Your task to perform on an android device: Search for "logitech g933" on bestbuy.com, select the first entry, and add it to the cart. Image 0: 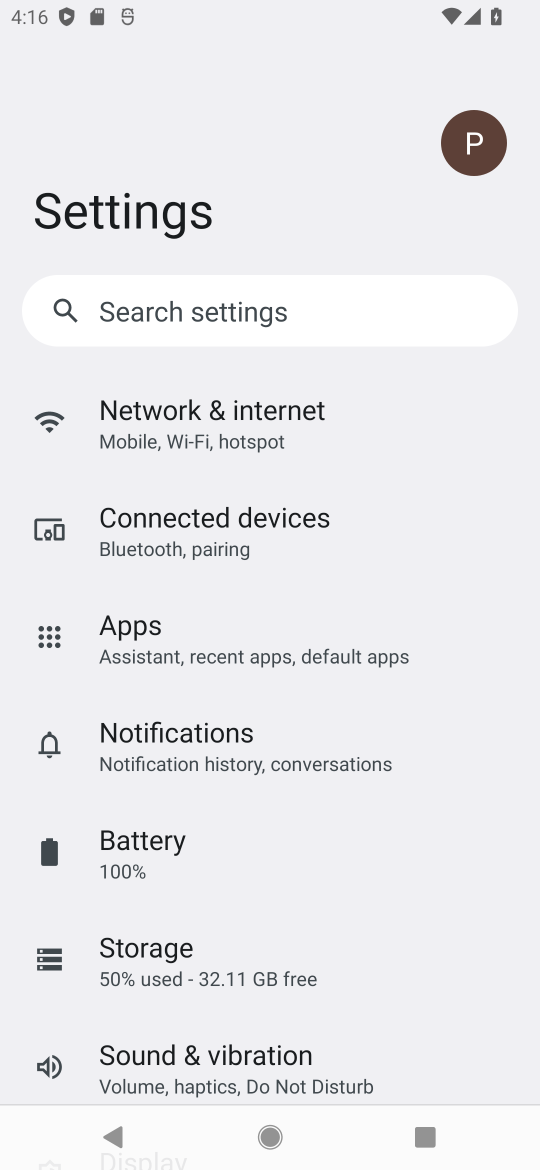
Step 0: press home button
Your task to perform on an android device: Search for "logitech g933" on bestbuy.com, select the first entry, and add it to the cart. Image 1: 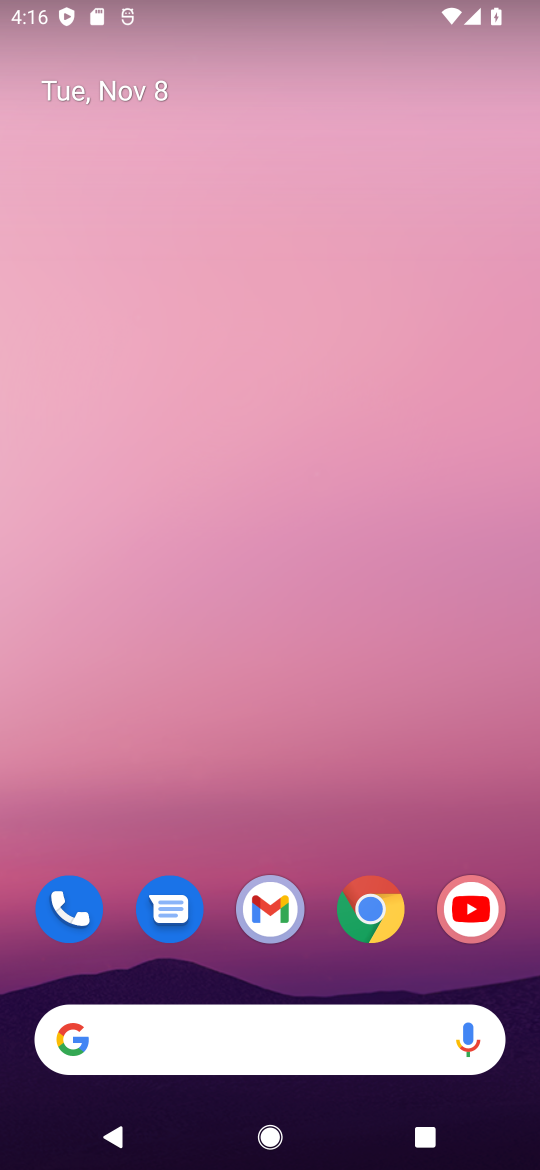
Step 1: click (376, 902)
Your task to perform on an android device: Search for "logitech g933" on bestbuy.com, select the first entry, and add it to the cart. Image 2: 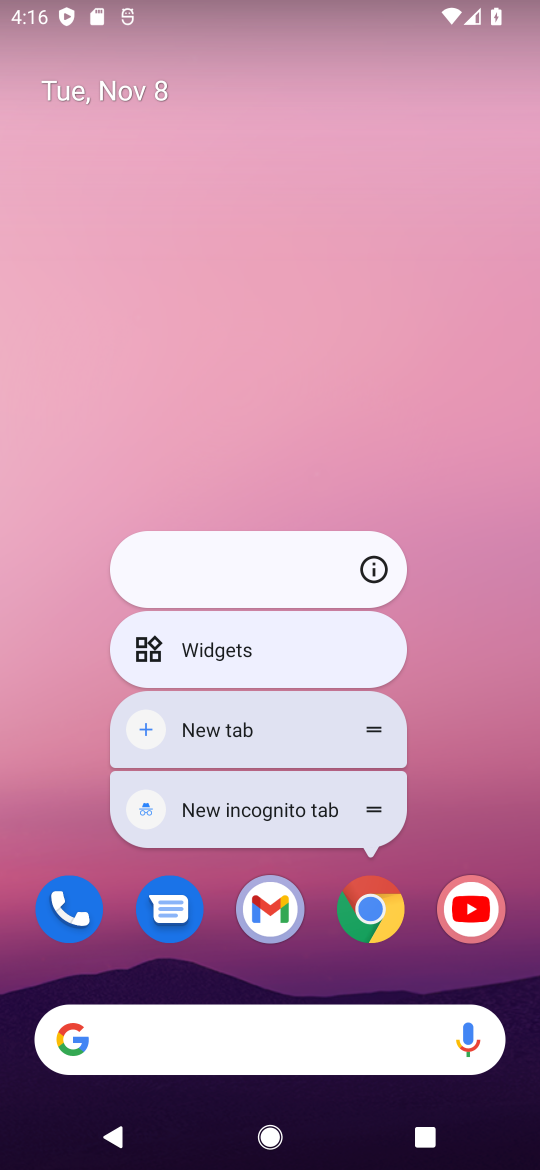
Step 2: click (376, 909)
Your task to perform on an android device: Search for "logitech g933" on bestbuy.com, select the first entry, and add it to the cart. Image 3: 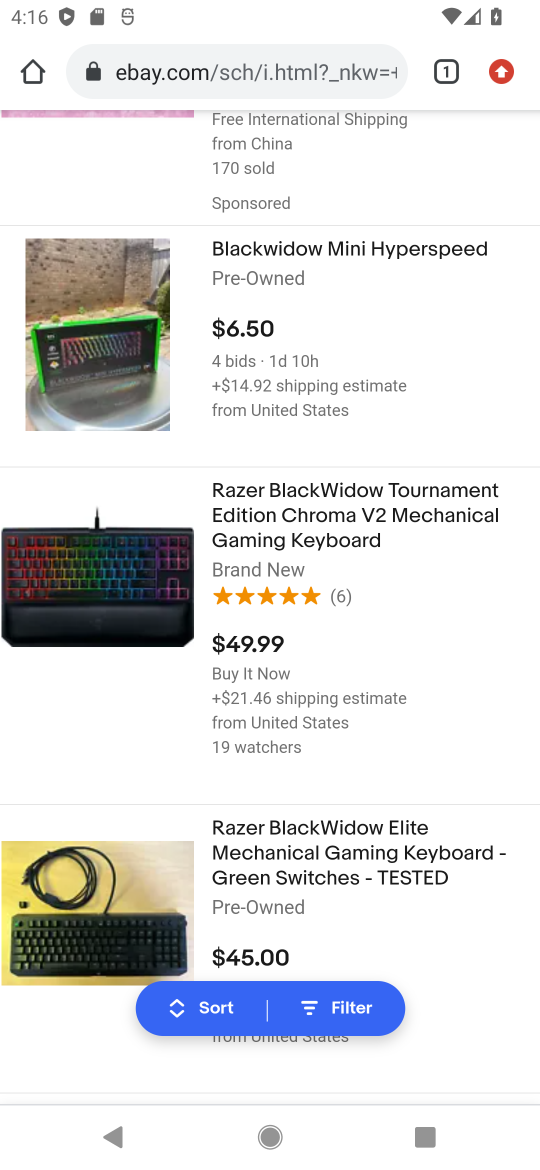
Step 3: click (288, 68)
Your task to perform on an android device: Search for "logitech g933" on bestbuy.com, select the first entry, and add it to the cart. Image 4: 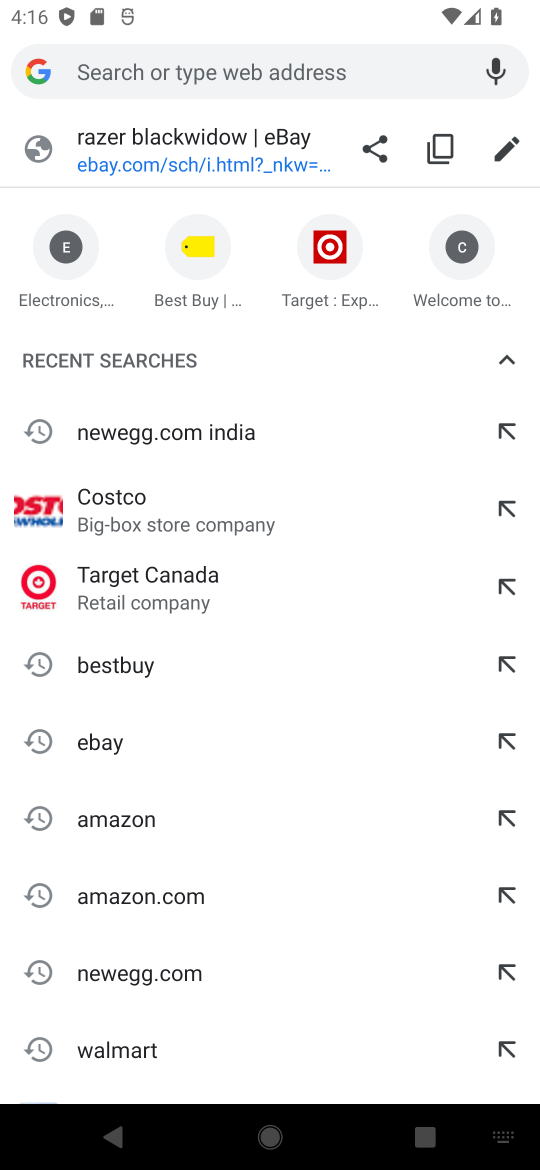
Step 4: type "bestbuy.com"
Your task to perform on an android device: Search for "logitech g933" on bestbuy.com, select the first entry, and add it to the cart. Image 5: 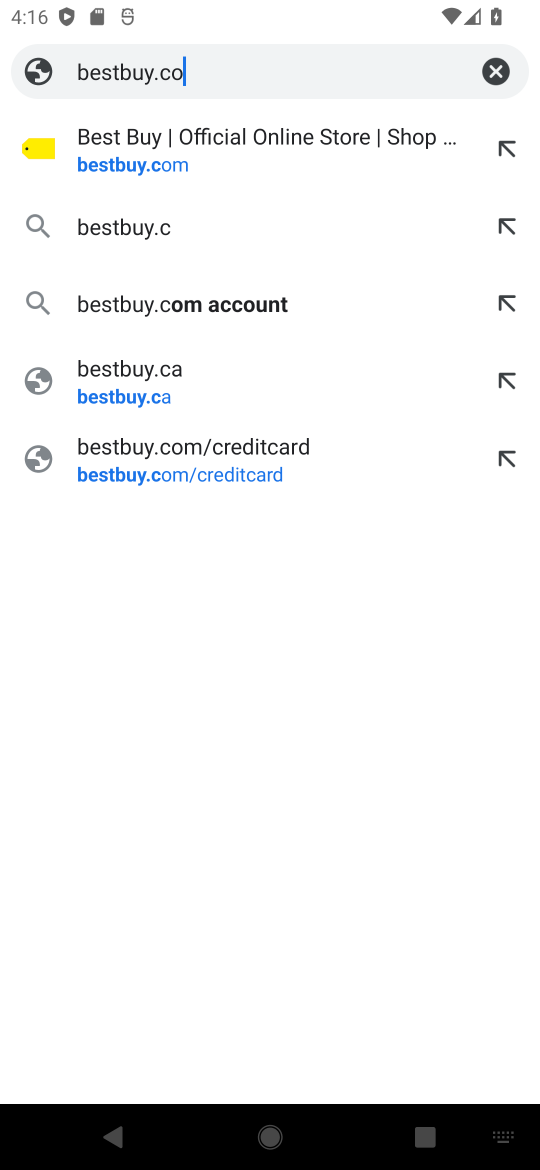
Step 5: press enter
Your task to perform on an android device: Search for "logitech g933" on bestbuy.com, select the first entry, and add it to the cart. Image 6: 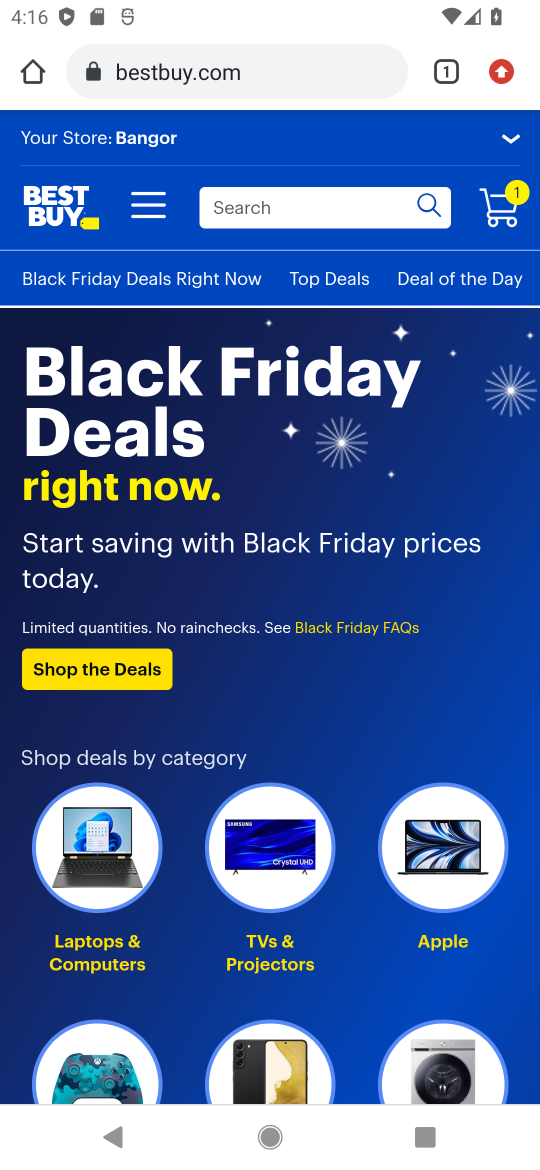
Step 6: click (303, 206)
Your task to perform on an android device: Search for "logitech g933" on bestbuy.com, select the first entry, and add it to the cart. Image 7: 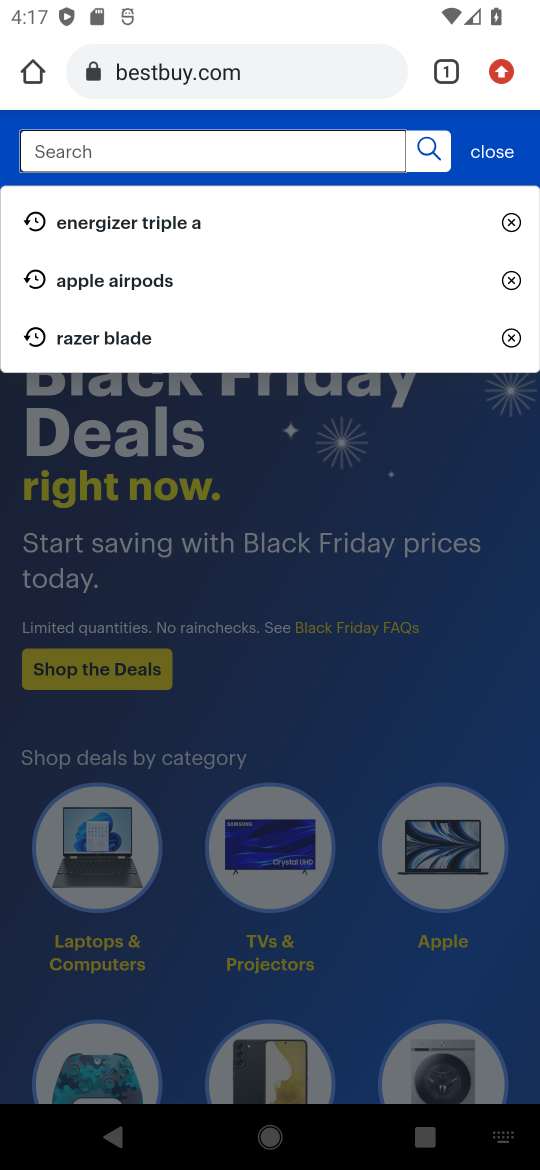
Step 7: type "logitech g933"
Your task to perform on an android device: Search for "logitech g933" on bestbuy.com, select the first entry, and add it to the cart. Image 8: 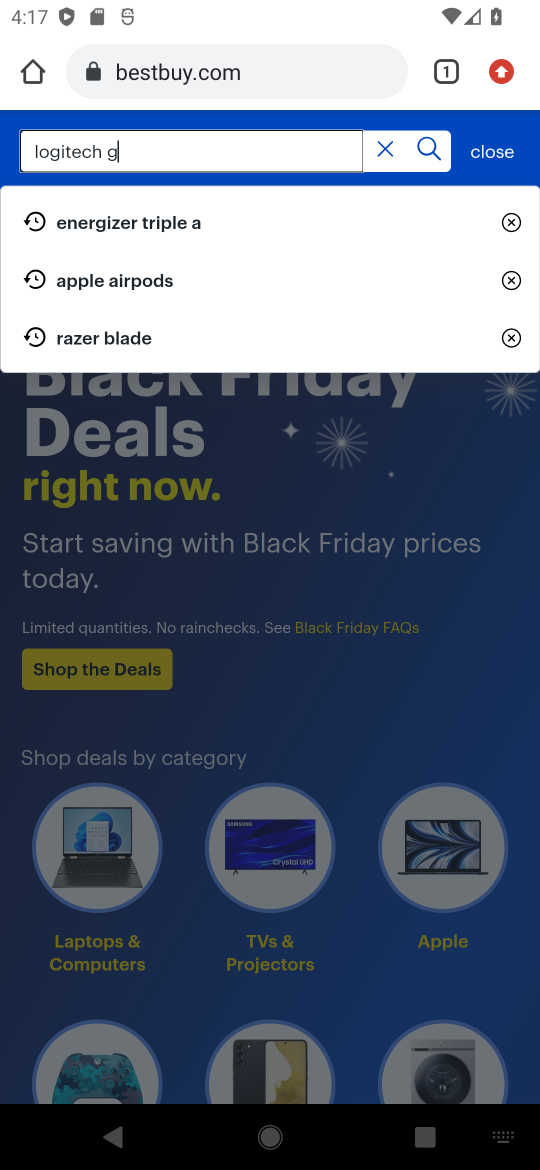
Step 8: press enter
Your task to perform on an android device: Search for "logitech g933" on bestbuy.com, select the first entry, and add it to the cart. Image 9: 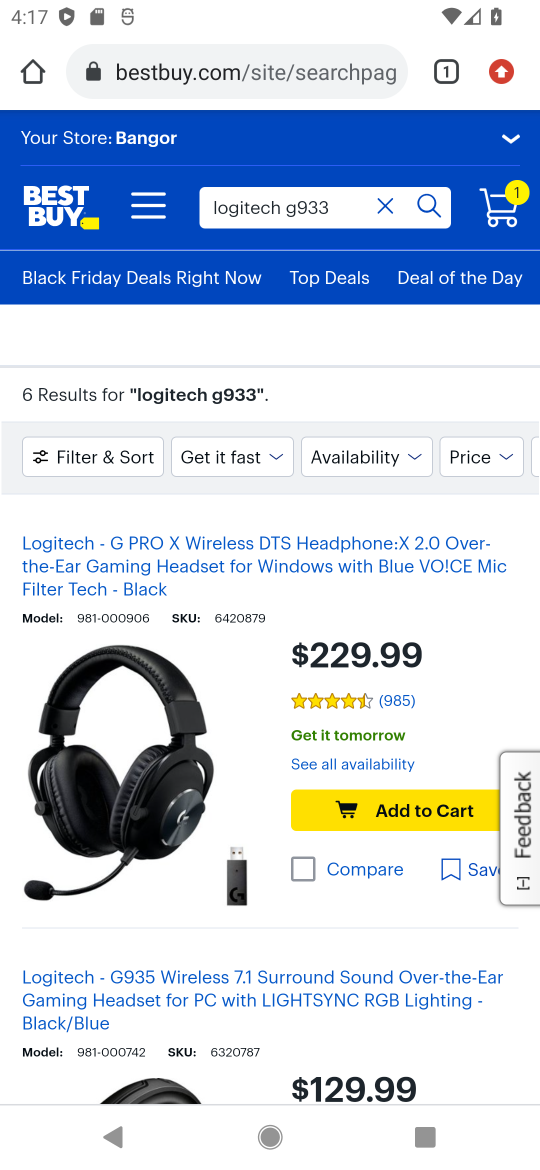
Step 9: task complete